Your task to perform on an android device: Open Google Maps Image 0: 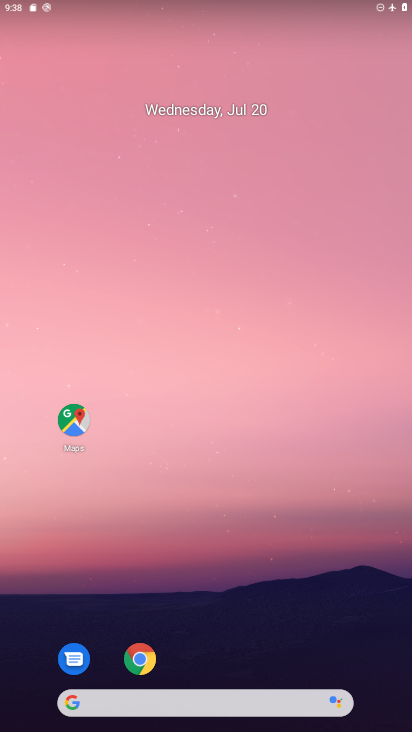
Step 0: drag from (262, 650) to (223, 99)
Your task to perform on an android device: Open Google Maps Image 1: 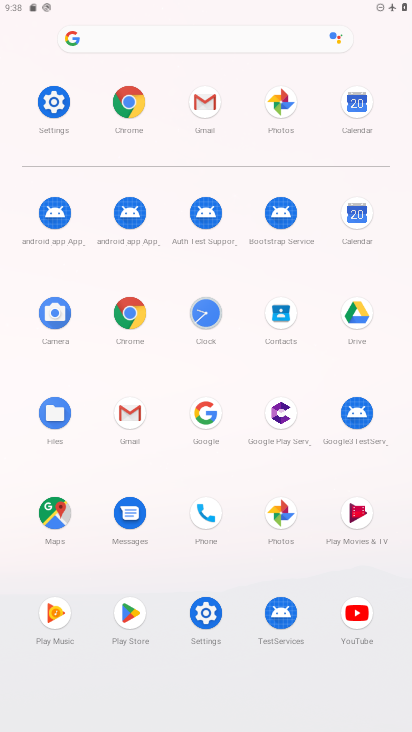
Step 1: click (46, 517)
Your task to perform on an android device: Open Google Maps Image 2: 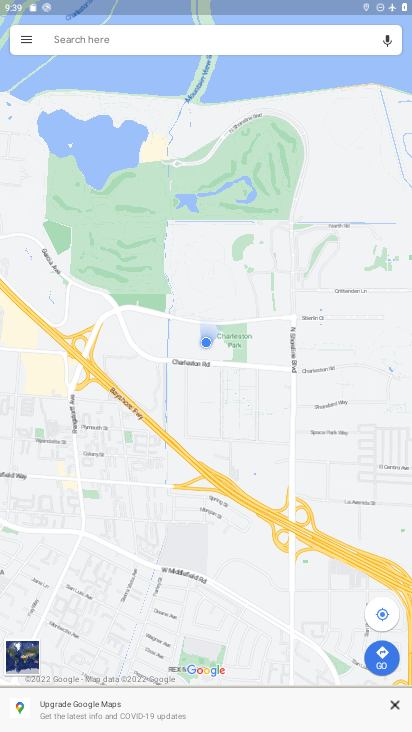
Step 2: task complete